Your task to perform on an android device: open a bookmark in the chrome app Image 0: 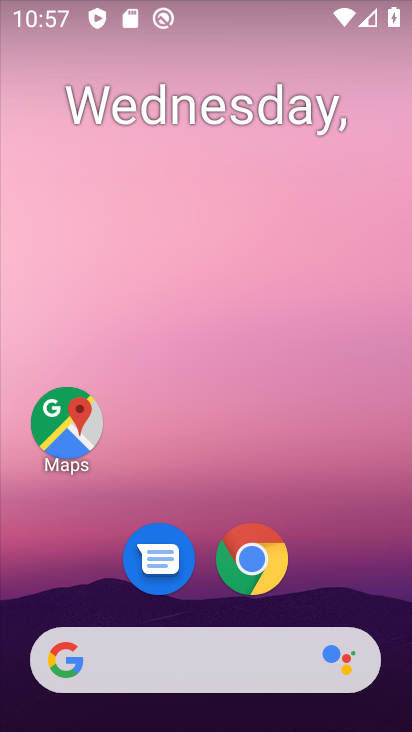
Step 0: click (271, 568)
Your task to perform on an android device: open a bookmark in the chrome app Image 1: 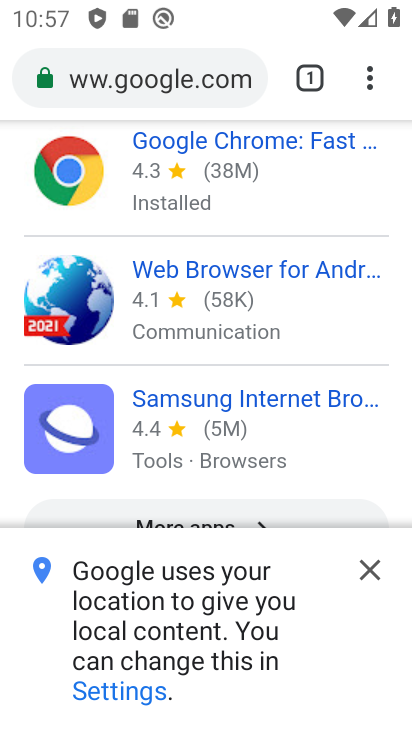
Step 1: task complete